Your task to perform on an android device: see creations saved in the google photos Image 0: 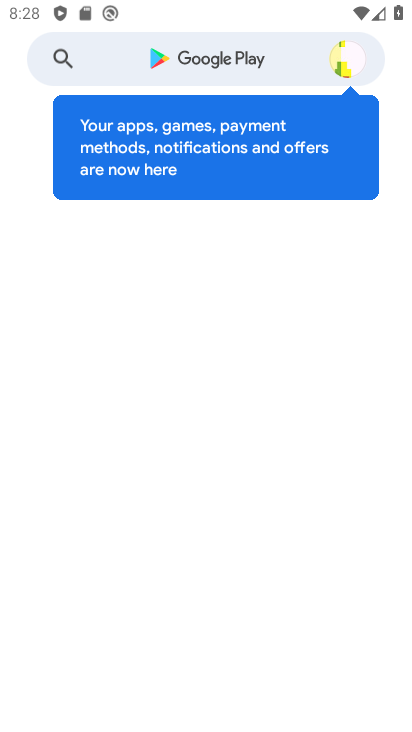
Step 0: press home button
Your task to perform on an android device: see creations saved in the google photos Image 1: 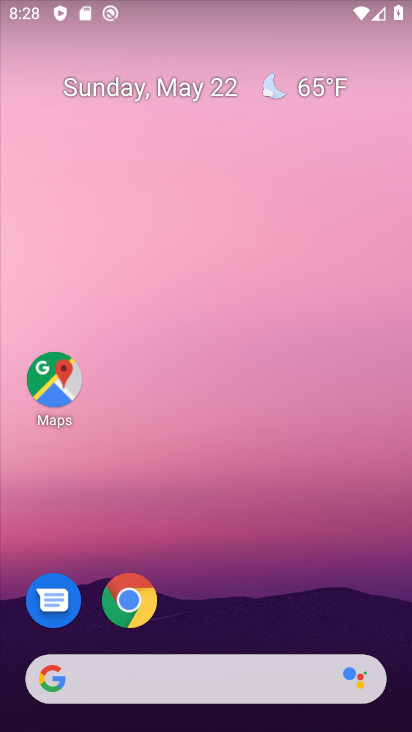
Step 1: drag from (176, 619) to (180, 223)
Your task to perform on an android device: see creations saved in the google photos Image 2: 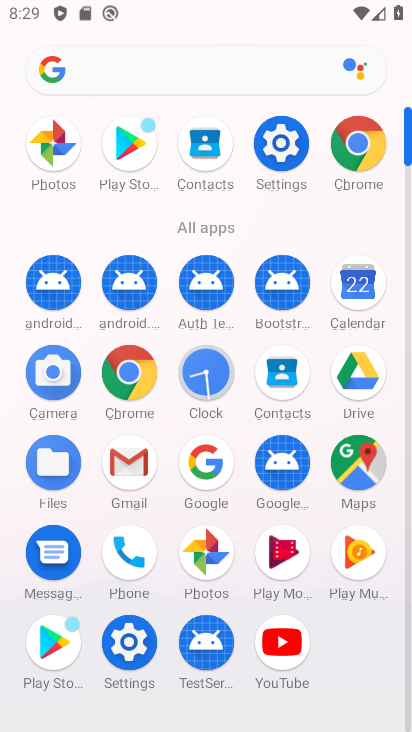
Step 2: click (57, 160)
Your task to perform on an android device: see creations saved in the google photos Image 3: 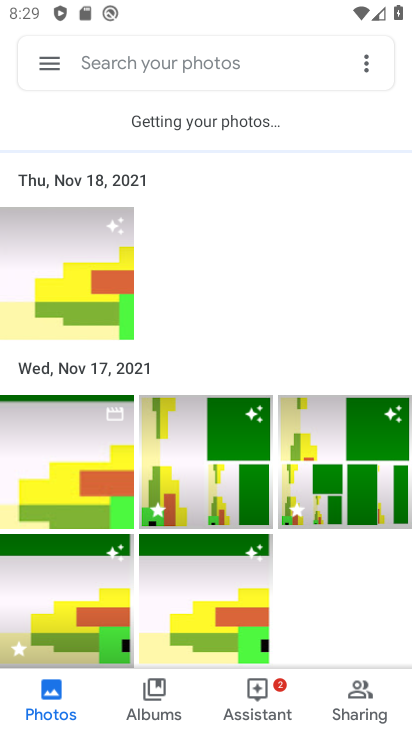
Step 3: click (135, 52)
Your task to perform on an android device: see creations saved in the google photos Image 4: 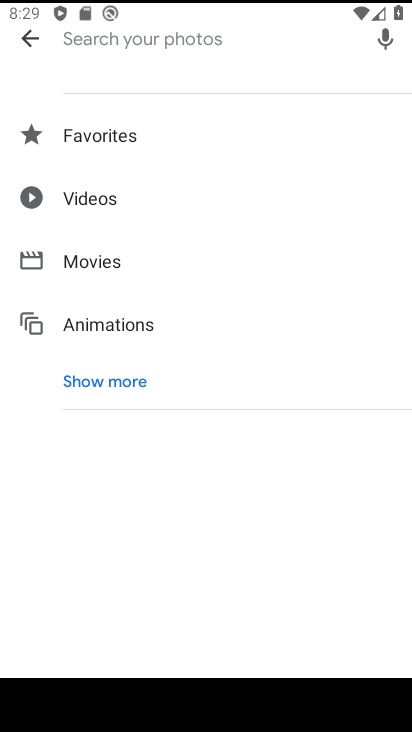
Step 4: click (73, 388)
Your task to perform on an android device: see creations saved in the google photos Image 5: 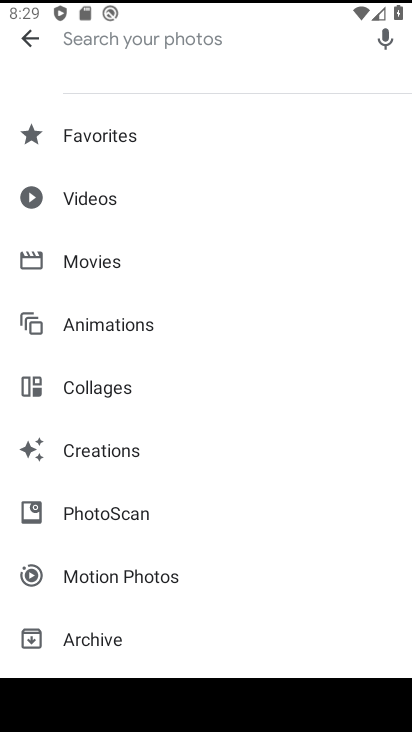
Step 5: click (102, 452)
Your task to perform on an android device: see creations saved in the google photos Image 6: 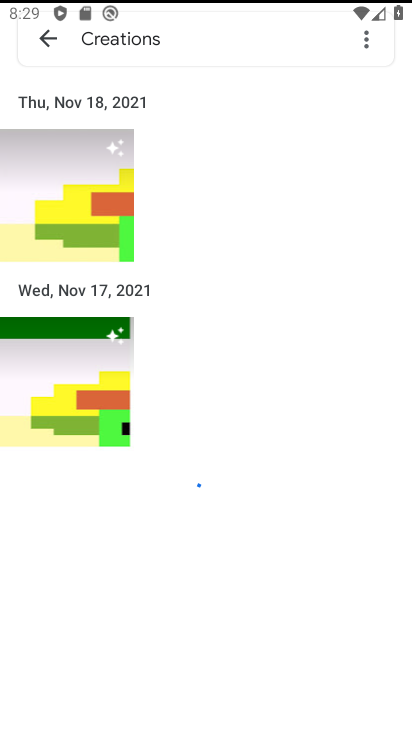
Step 6: task complete